Your task to perform on an android device: Open Yahoo.com Image 0: 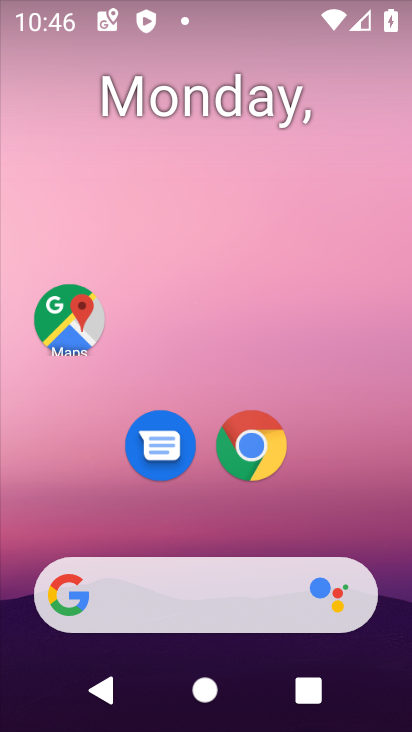
Step 0: click (261, 416)
Your task to perform on an android device: Open Yahoo.com Image 1: 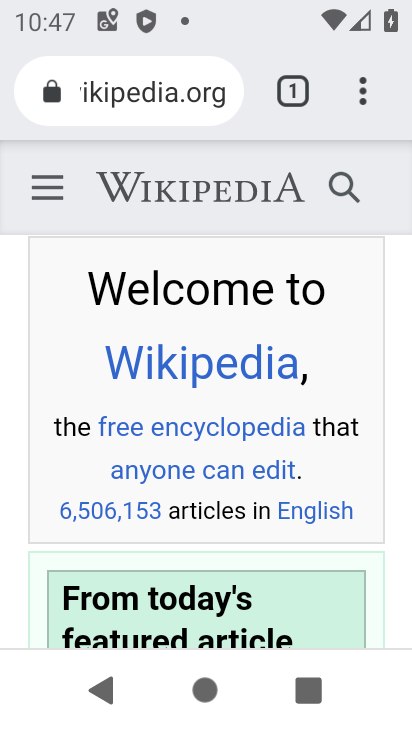
Step 1: click (286, 92)
Your task to perform on an android device: Open Yahoo.com Image 2: 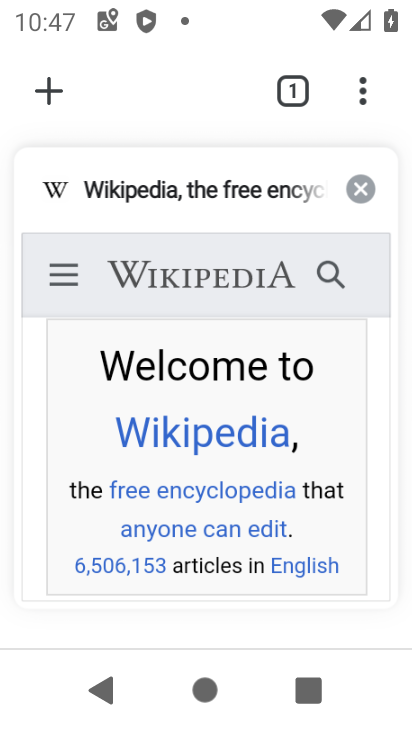
Step 2: click (47, 83)
Your task to perform on an android device: Open Yahoo.com Image 3: 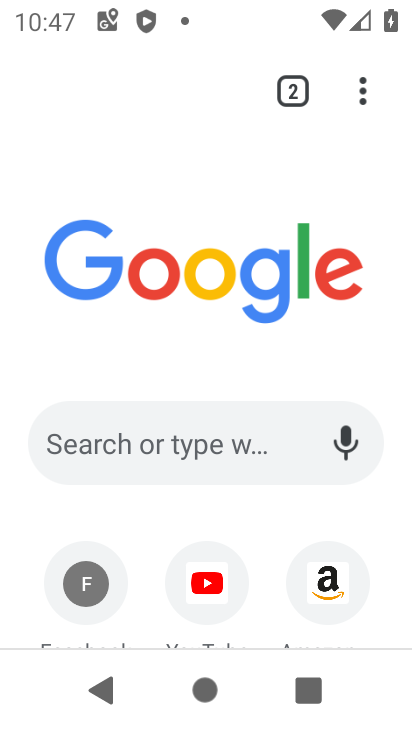
Step 3: drag from (179, 594) to (277, 188)
Your task to perform on an android device: Open Yahoo.com Image 4: 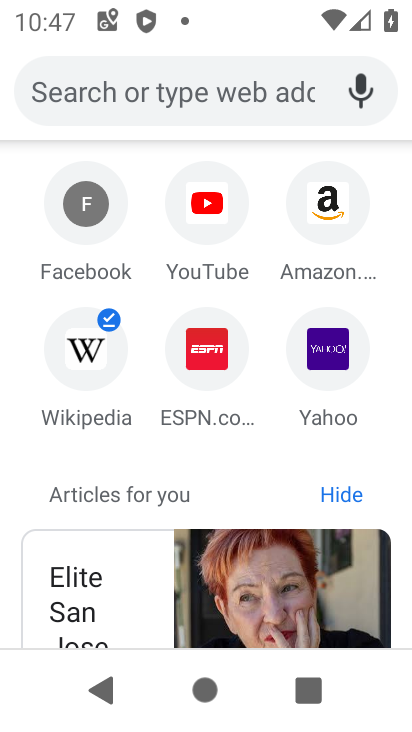
Step 4: click (318, 337)
Your task to perform on an android device: Open Yahoo.com Image 5: 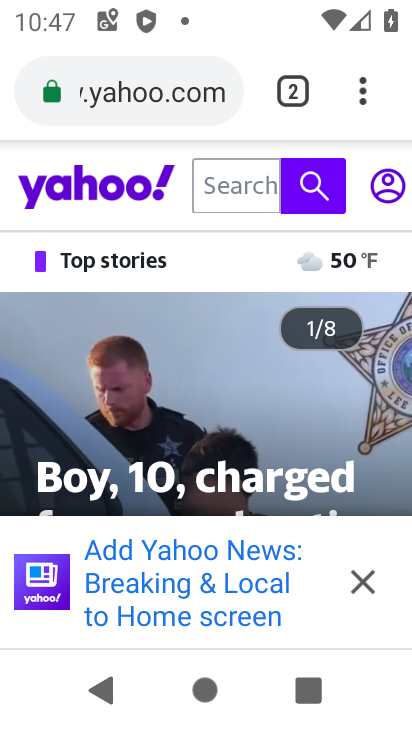
Step 5: task complete